Your task to perform on an android device: Show me popular games on the Play Store Image 0: 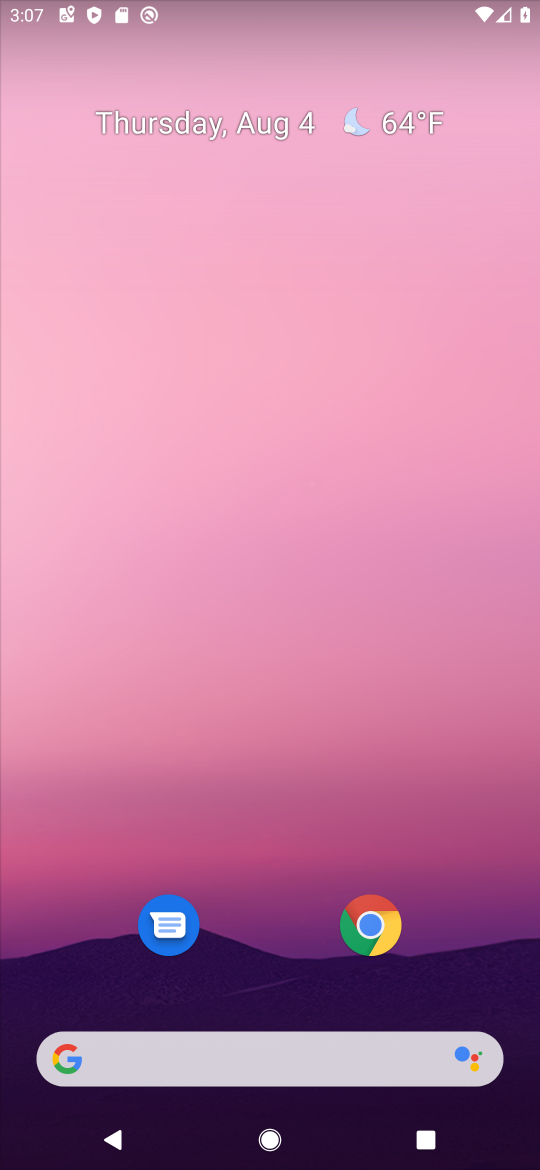
Step 0: drag from (295, 910) to (374, 305)
Your task to perform on an android device: Show me popular games on the Play Store Image 1: 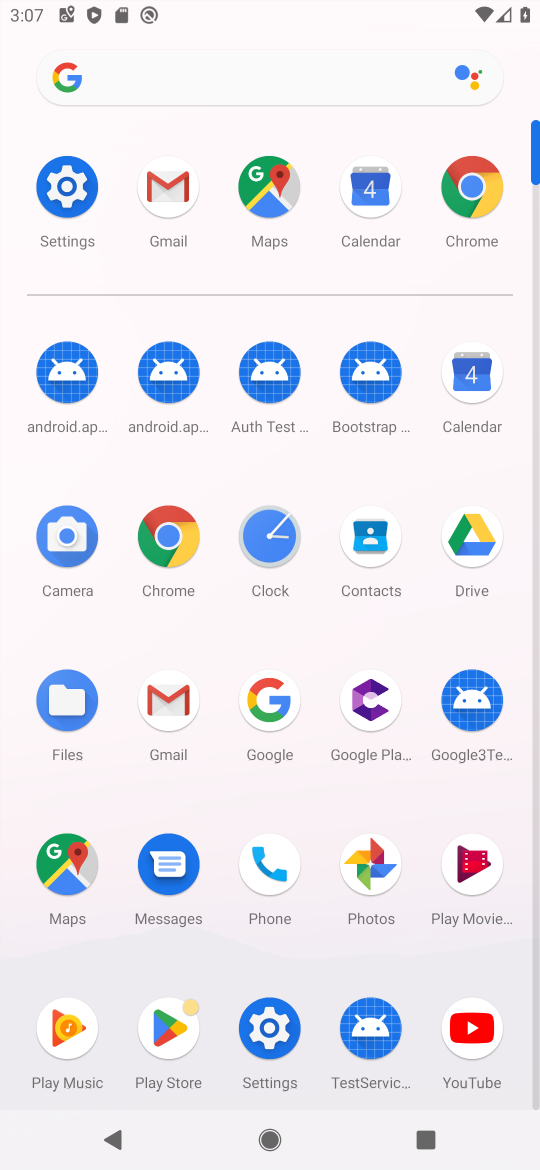
Step 1: click (175, 1025)
Your task to perform on an android device: Show me popular games on the Play Store Image 2: 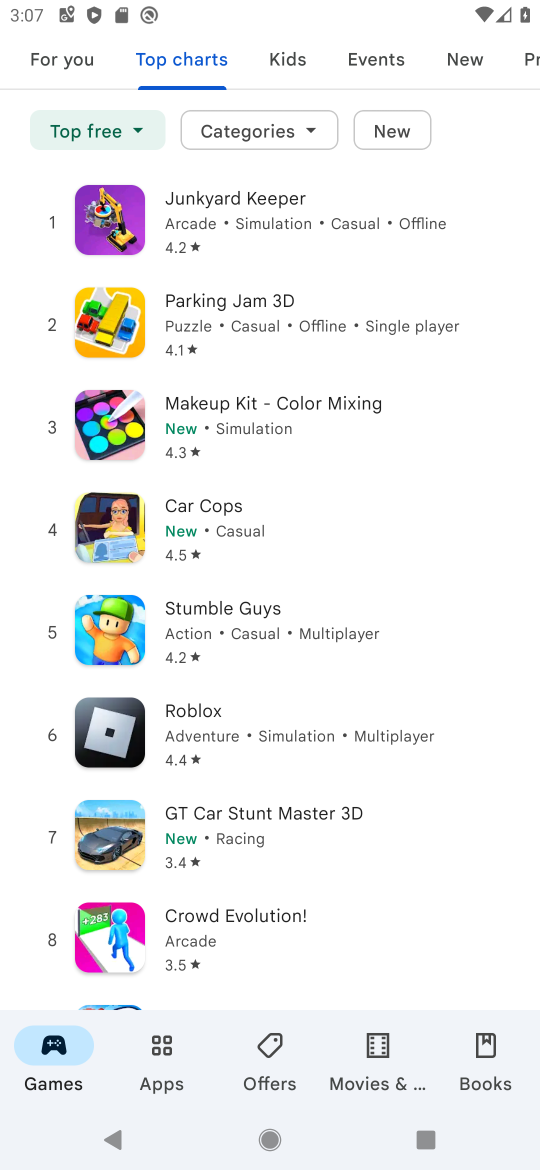
Step 2: task complete